Your task to perform on an android device: open a new tab in the chrome app Image 0: 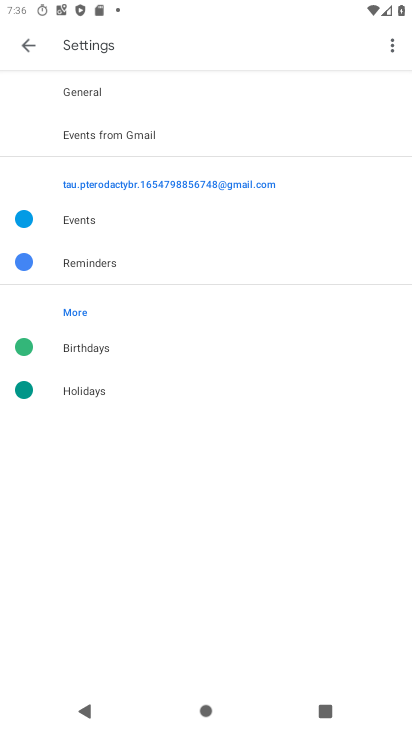
Step 0: press home button
Your task to perform on an android device: open a new tab in the chrome app Image 1: 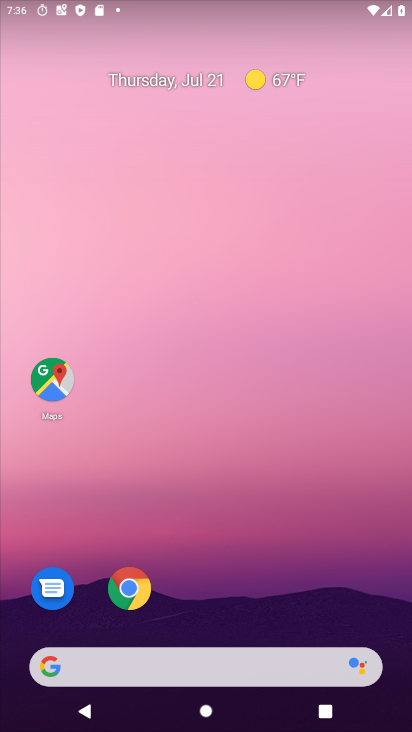
Step 1: click (139, 588)
Your task to perform on an android device: open a new tab in the chrome app Image 2: 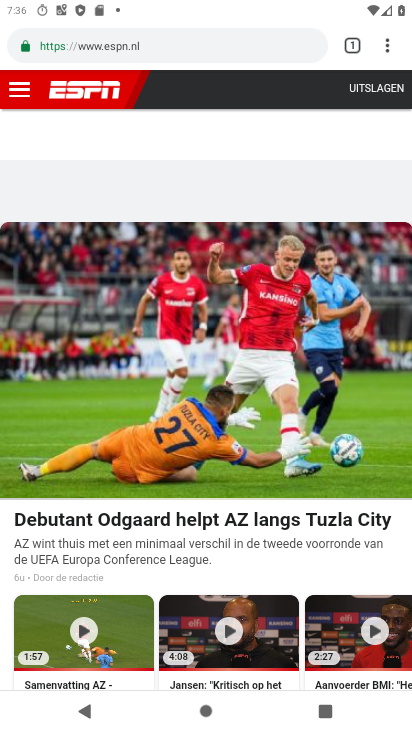
Step 2: click (385, 41)
Your task to perform on an android device: open a new tab in the chrome app Image 3: 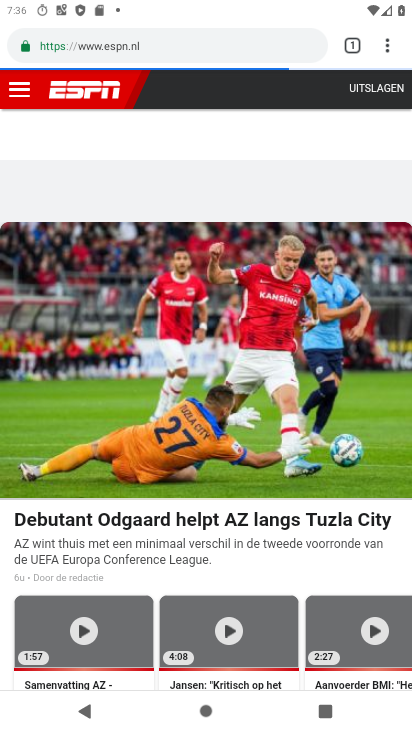
Step 3: click (390, 40)
Your task to perform on an android device: open a new tab in the chrome app Image 4: 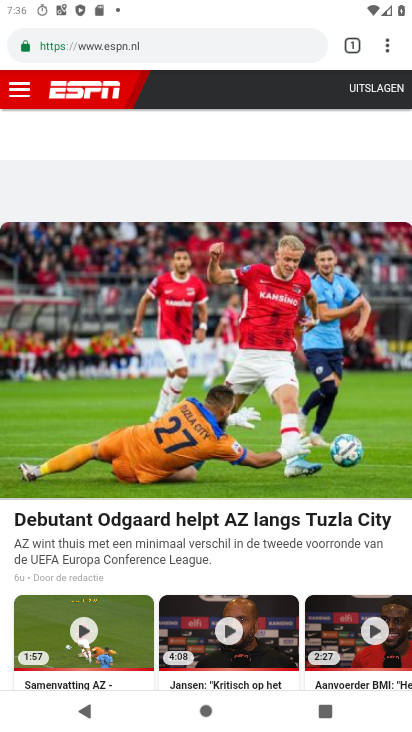
Step 4: click (387, 40)
Your task to perform on an android device: open a new tab in the chrome app Image 5: 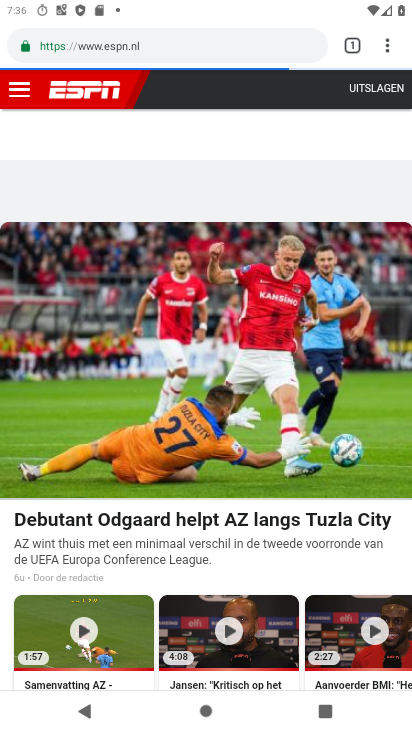
Step 5: click (387, 40)
Your task to perform on an android device: open a new tab in the chrome app Image 6: 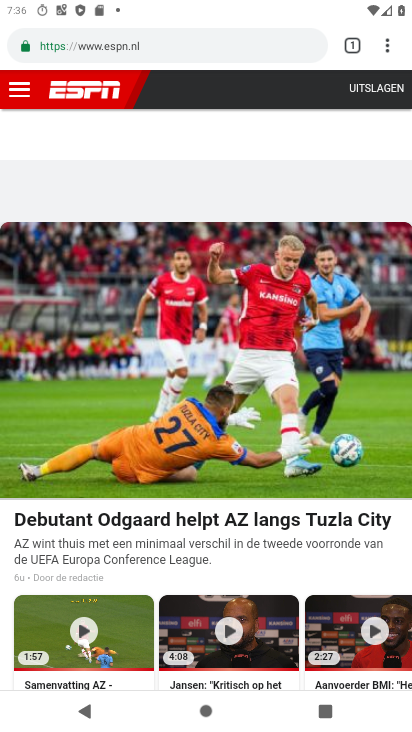
Step 6: click (395, 46)
Your task to perform on an android device: open a new tab in the chrome app Image 7: 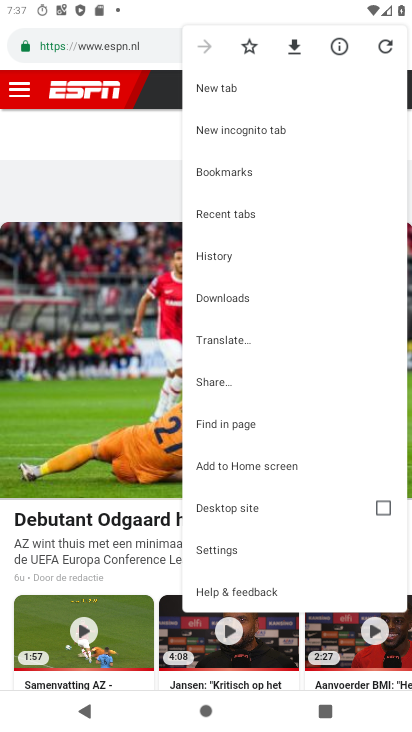
Step 7: click (289, 85)
Your task to perform on an android device: open a new tab in the chrome app Image 8: 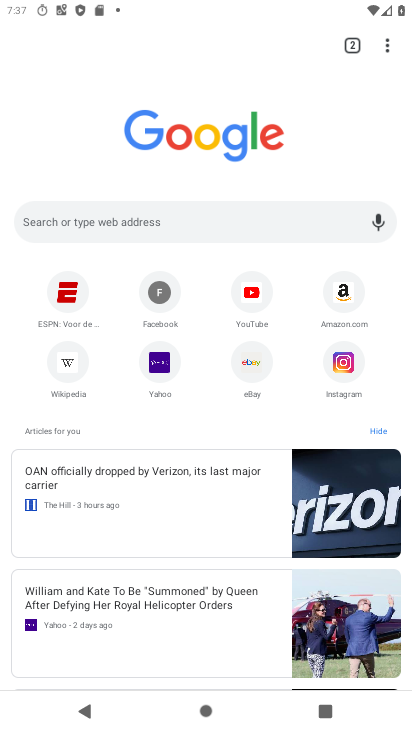
Step 8: task complete